Your task to perform on an android device: Open CNN.com Image 0: 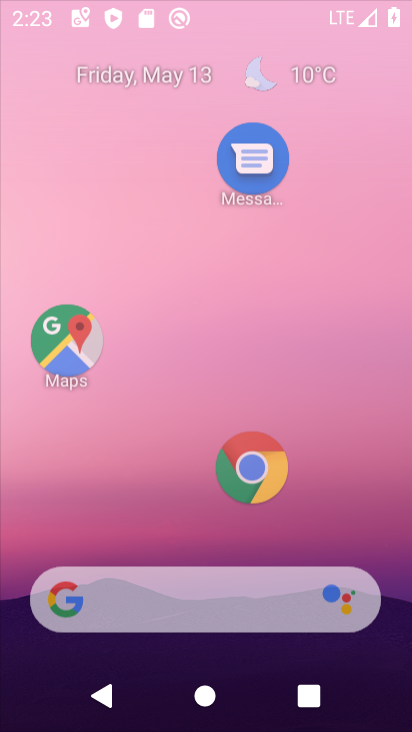
Step 0: click (174, 170)
Your task to perform on an android device: Open CNN.com Image 1: 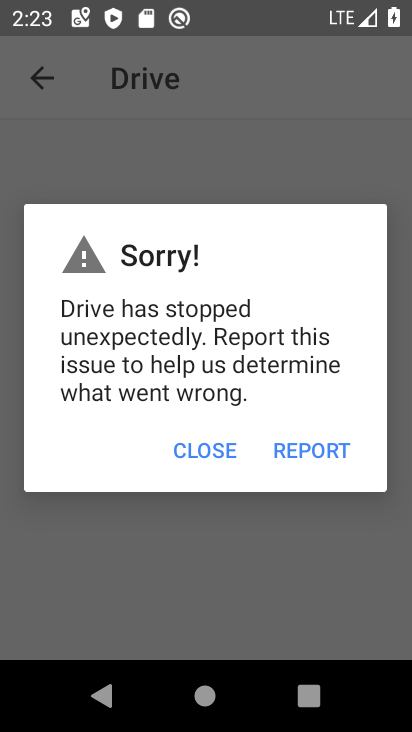
Step 1: press home button
Your task to perform on an android device: Open CNN.com Image 2: 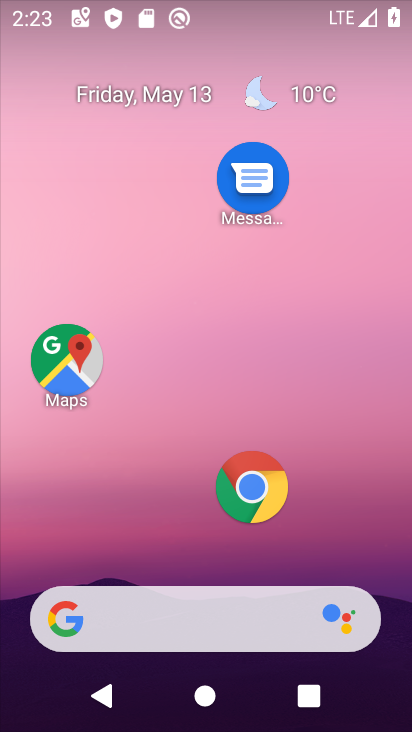
Step 2: click (252, 481)
Your task to perform on an android device: Open CNN.com Image 3: 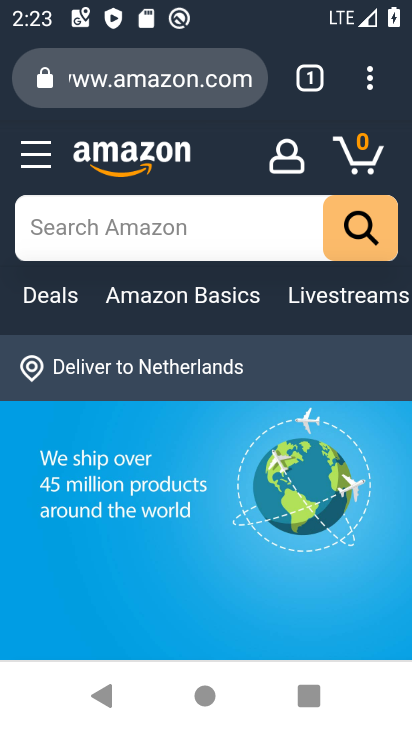
Step 3: click (192, 84)
Your task to perform on an android device: Open CNN.com Image 4: 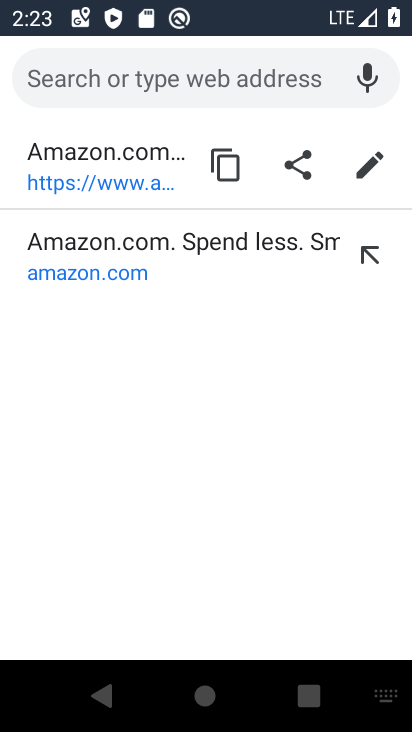
Step 4: type "CNN.com"
Your task to perform on an android device: Open CNN.com Image 5: 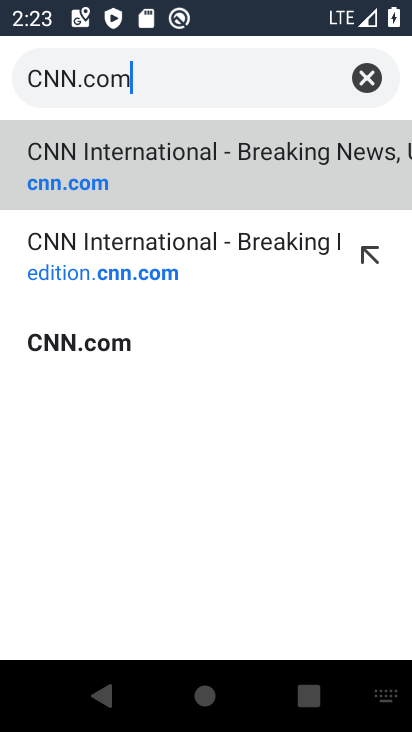
Step 5: click (98, 340)
Your task to perform on an android device: Open CNN.com Image 6: 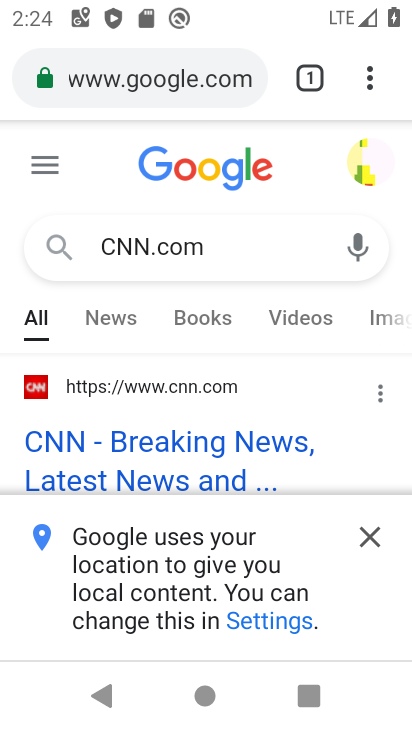
Step 6: task complete